Your task to perform on an android device: Go to battery settings Image 0: 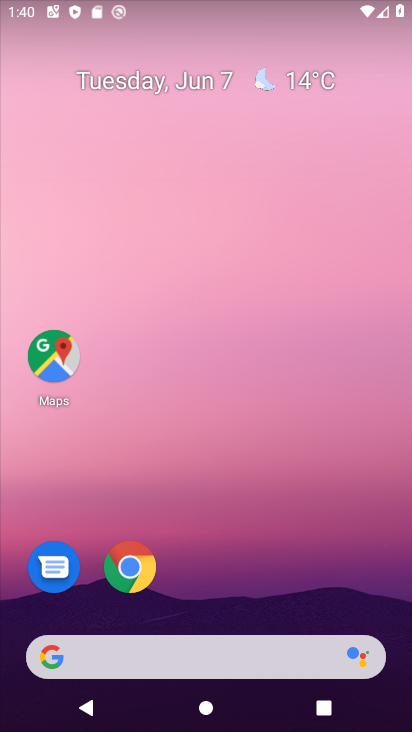
Step 0: drag from (339, 390) to (322, 32)
Your task to perform on an android device: Go to battery settings Image 1: 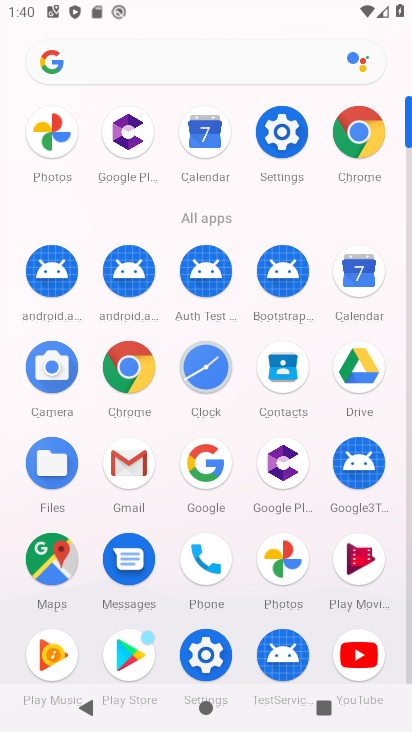
Step 1: click (268, 129)
Your task to perform on an android device: Go to battery settings Image 2: 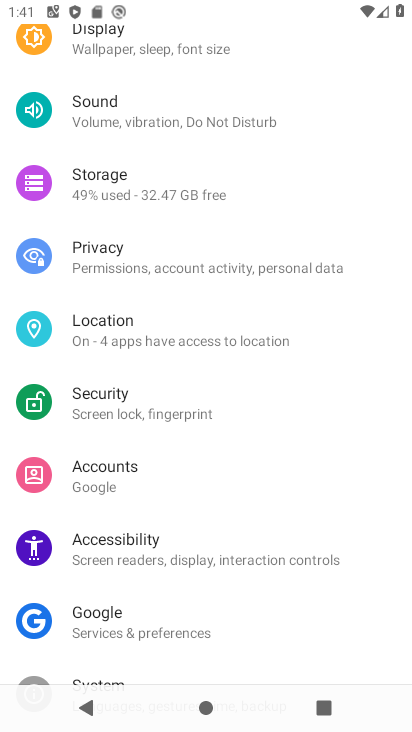
Step 2: drag from (285, 407) to (313, 528)
Your task to perform on an android device: Go to battery settings Image 3: 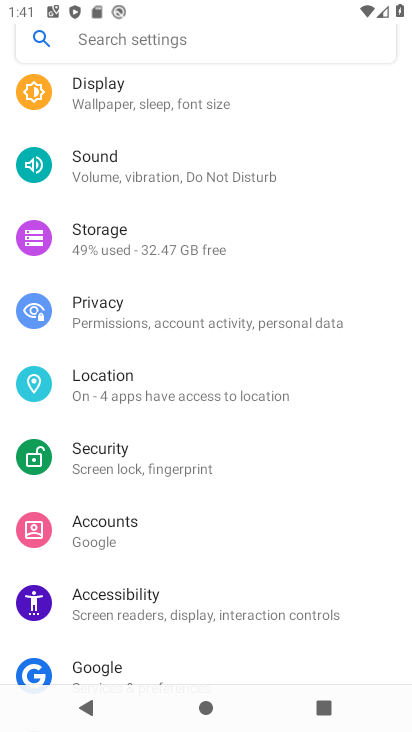
Step 3: drag from (283, 230) to (251, 669)
Your task to perform on an android device: Go to battery settings Image 4: 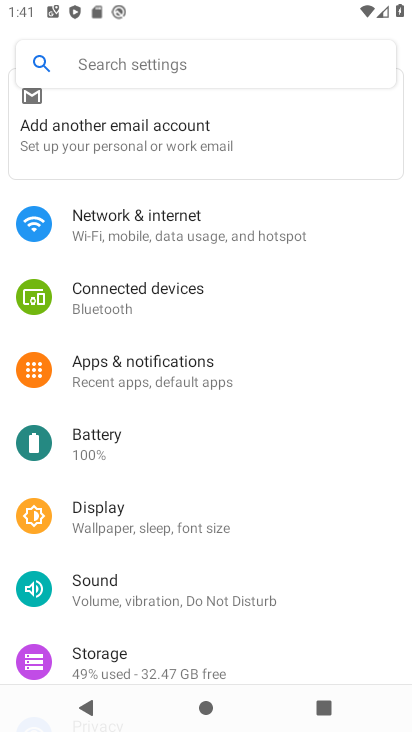
Step 4: click (161, 455)
Your task to perform on an android device: Go to battery settings Image 5: 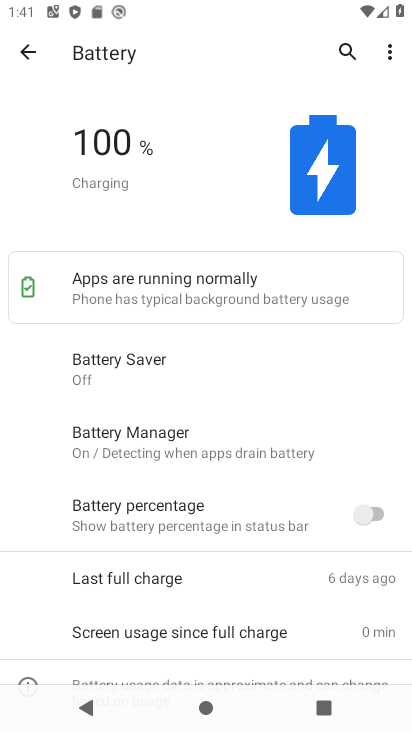
Step 5: task complete